Your task to perform on an android device: Search for sushi restaurants on Maps Image 0: 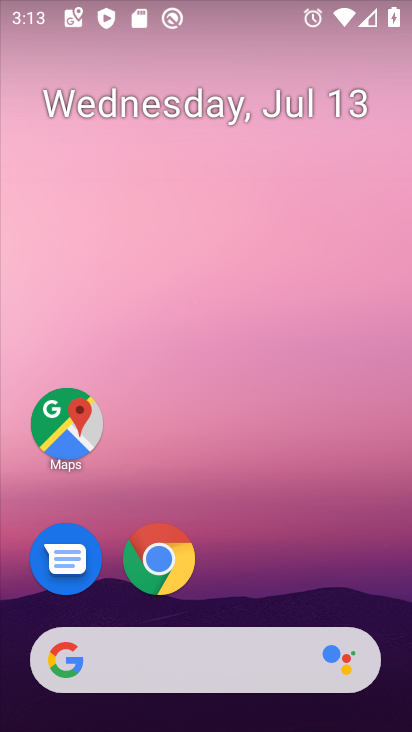
Step 0: drag from (283, 575) to (327, 201)
Your task to perform on an android device: Search for sushi restaurants on Maps Image 1: 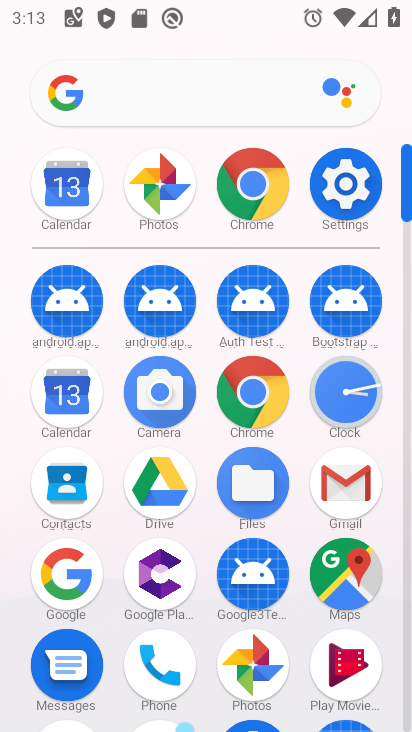
Step 1: click (361, 581)
Your task to perform on an android device: Search for sushi restaurants on Maps Image 2: 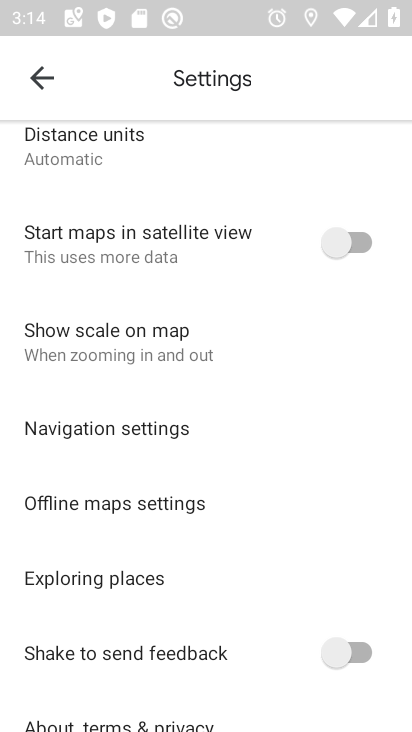
Step 2: press back button
Your task to perform on an android device: Search for sushi restaurants on Maps Image 3: 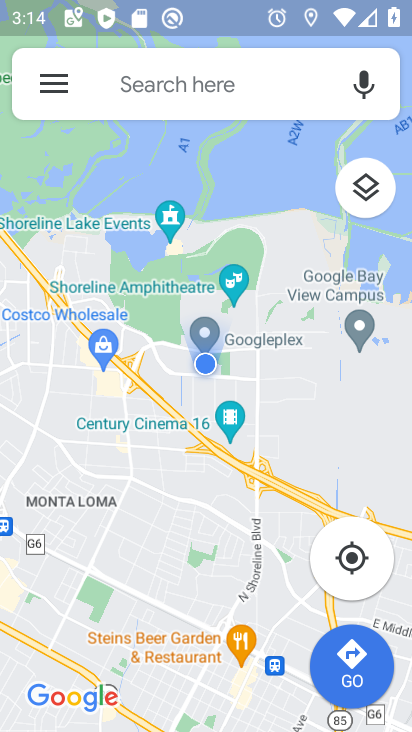
Step 3: click (222, 91)
Your task to perform on an android device: Search for sushi restaurants on Maps Image 4: 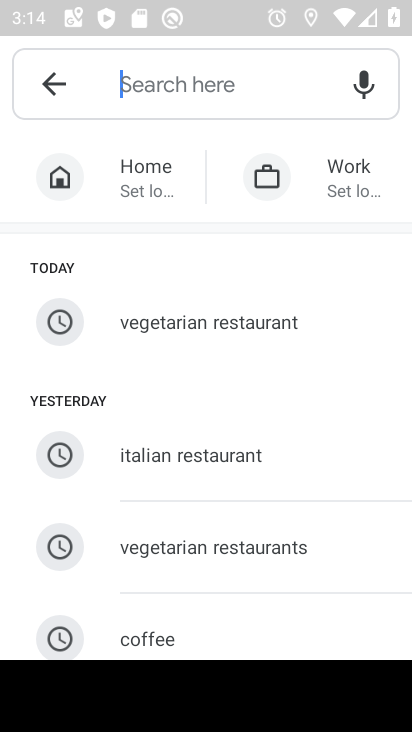
Step 4: type "sushi restaurants"
Your task to perform on an android device: Search for sushi restaurants on Maps Image 5: 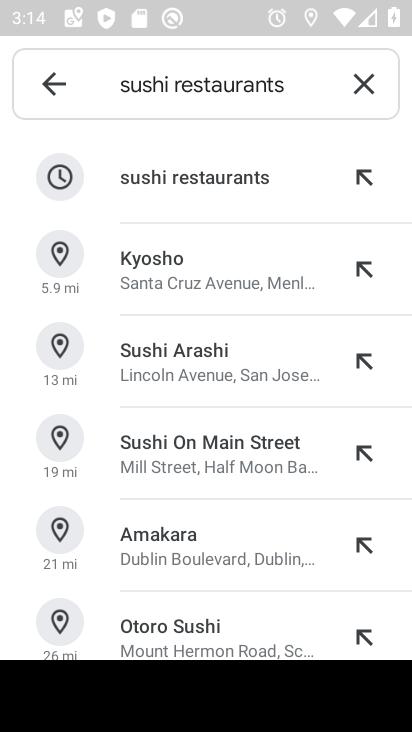
Step 5: click (285, 197)
Your task to perform on an android device: Search for sushi restaurants on Maps Image 6: 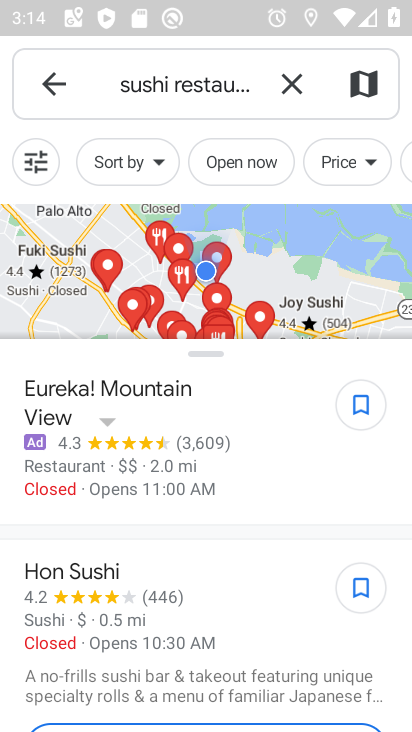
Step 6: task complete